Your task to perform on an android device: change the clock display to show seconds Image 0: 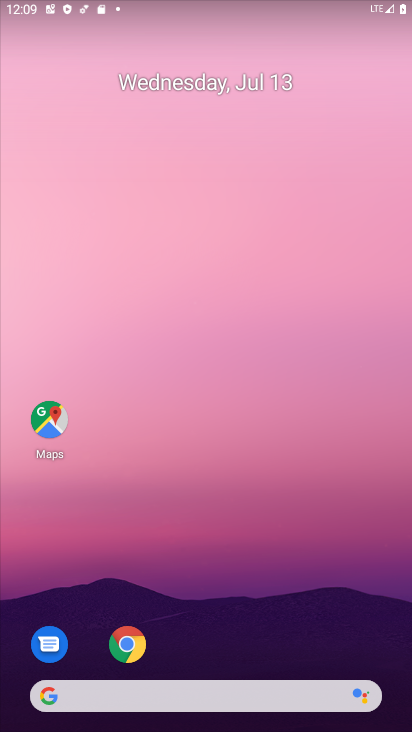
Step 0: drag from (236, 626) to (280, 129)
Your task to perform on an android device: change the clock display to show seconds Image 1: 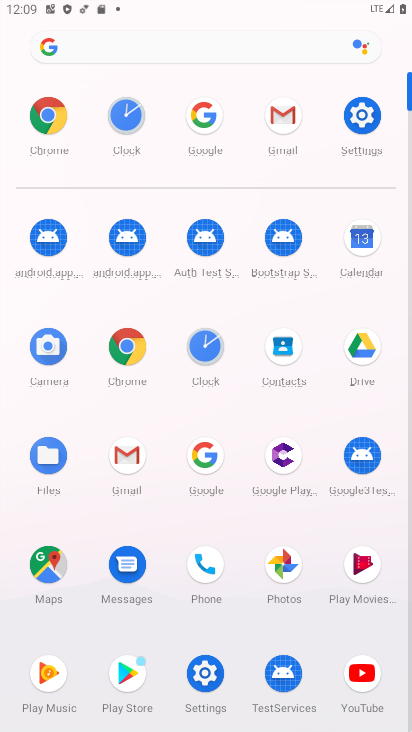
Step 1: click (207, 346)
Your task to perform on an android device: change the clock display to show seconds Image 2: 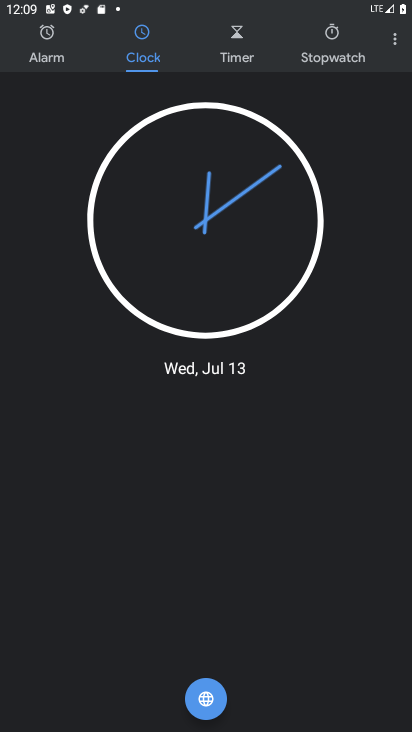
Step 2: click (384, 42)
Your task to perform on an android device: change the clock display to show seconds Image 3: 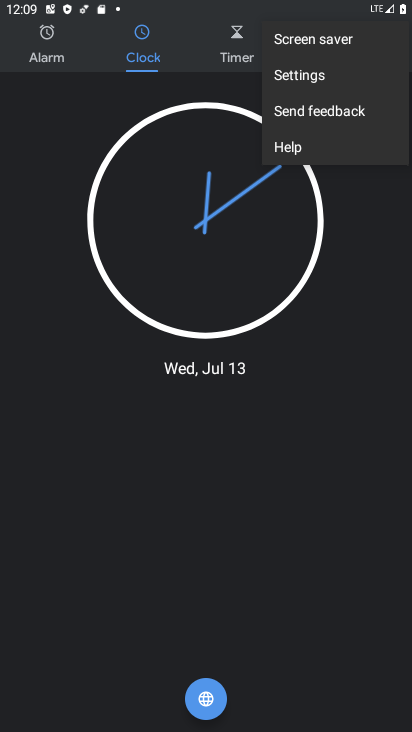
Step 3: click (295, 68)
Your task to perform on an android device: change the clock display to show seconds Image 4: 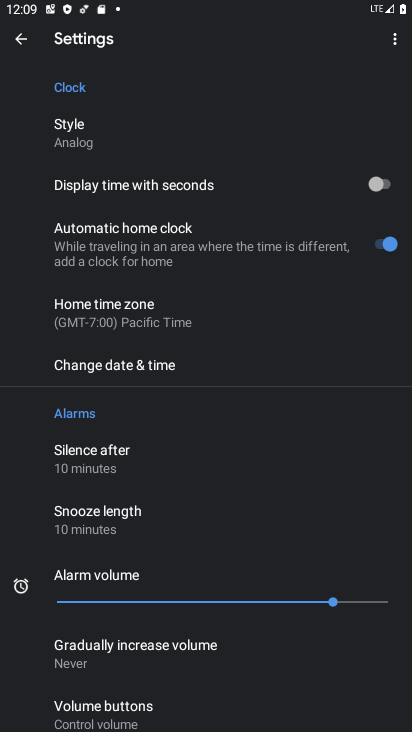
Step 4: drag from (208, 558) to (276, 582)
Your task to perform on an android device: change the clock display to show seconds Image 5: 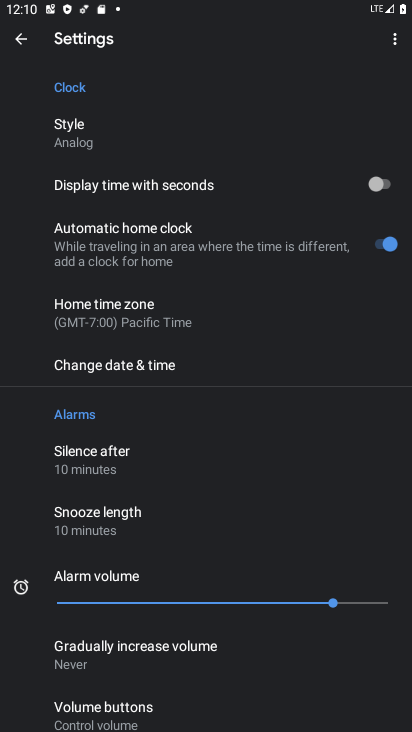
Step 5: click (377, 186)
Your task to perform on an android device: change the clock display to show seconds Image 6: 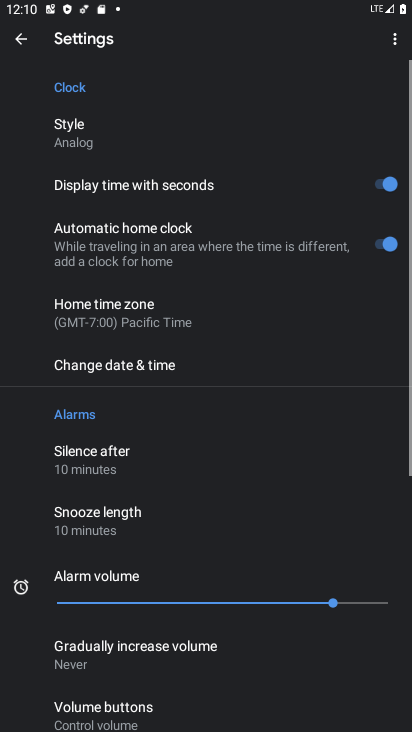
Step 6: task complete